Your task to perform on an android device: turn on the 12-hour format for clock Image 0: 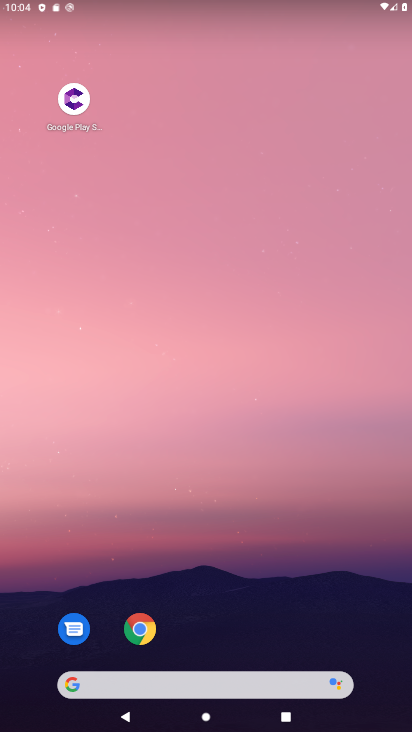
Step 0: press home button
Your task to perform on an android device: turn on the 12-hour format for clock Image 1: 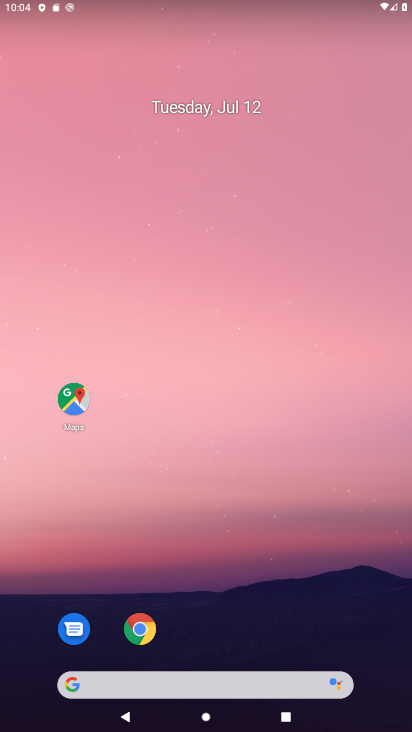
Step 1: press home button
Your task to perform on an android device: turn on the 12-hour format for clock Image 2: 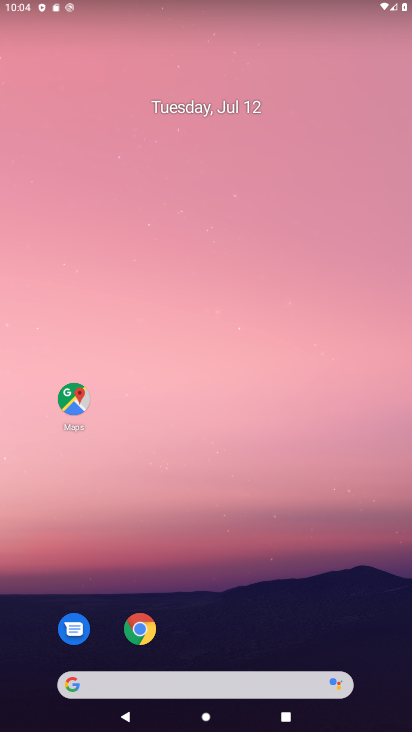
Step 2: drag from (311, 607) to (312, 417)
Your task to perform on an android device: turn on the 12-hour format for clock Image 3: 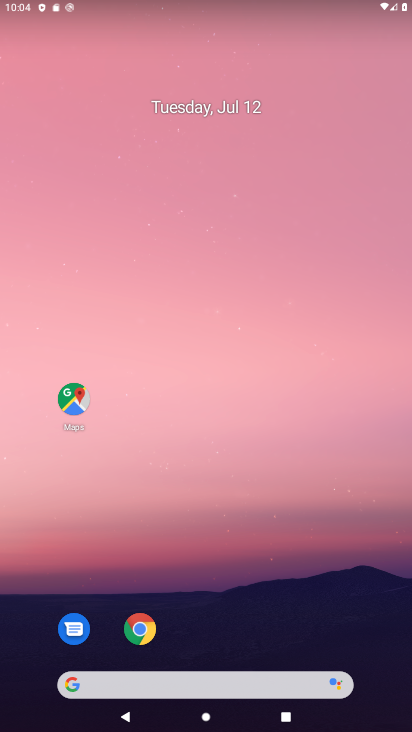
Step 3: drag from (338, 601) to (261, 42)
Your task to perform on an android device: turn on the 12-hour format for clock Image 4: 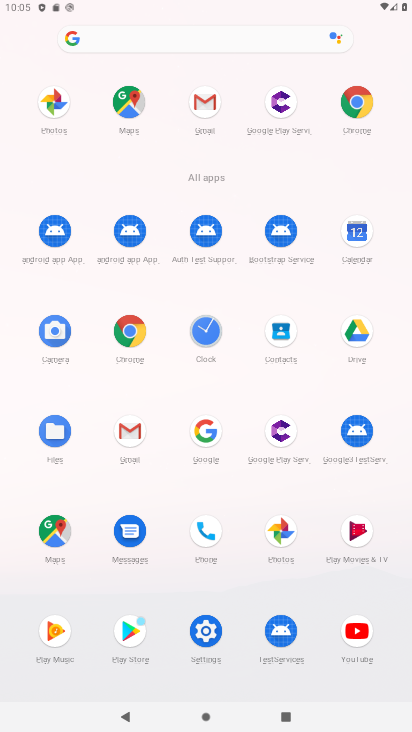
Step 4: click (209, 618)
Your task to perform on an android device: turn on the 12-hour format for clock Image 5: 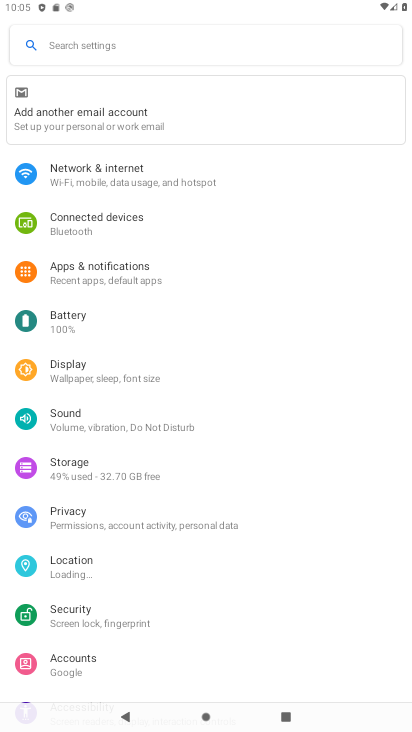
Step 5: drag from (201, 659) to (145, 418)
Your task to perform on an android device: turn on the 12-hour format for clock Image 6: 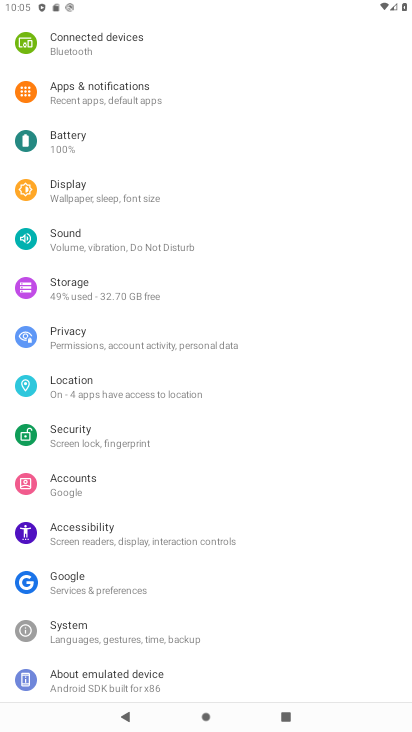
Step 6: drag from (202, 334) to (171, 725)
Your task to perform on an android device: turn on the 12-hour format for clock Image 7: 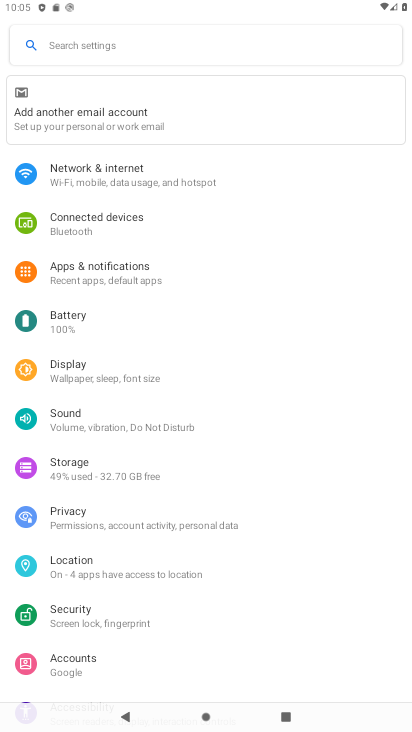
Step 7: drag from (222, 516) to (171, 398)
Your task to perform on an android device: turn on the 12-hour format for clock Image 8: 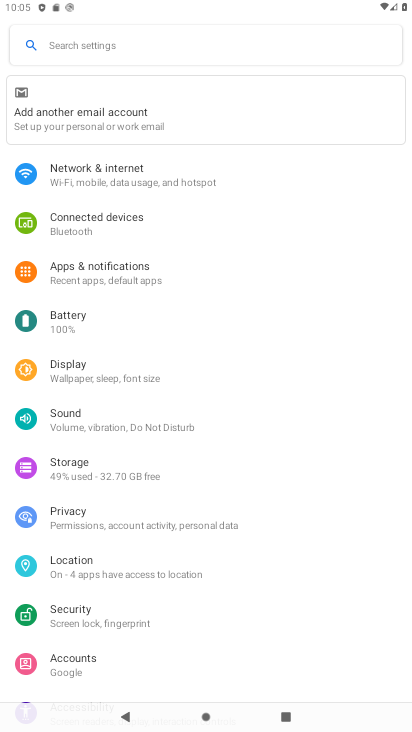
Step 8: press home button
Your task to perform on an android device: turn on the 12-hour format for clock Image 9: 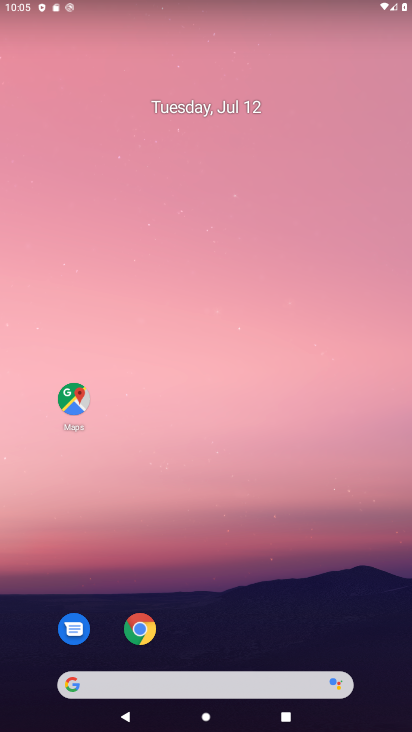
Step 9: drag from (316, 634) to (246, 146)
Your task to perform on an android device: turn on the 12-hour format for clock Image 10: 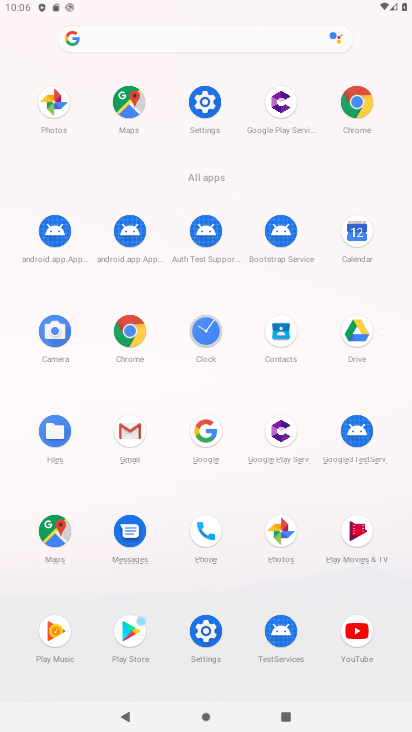
Step 10: click (208, 319)
Your task to perform on an android device: turn on the 12-hour format for clock Image 11: 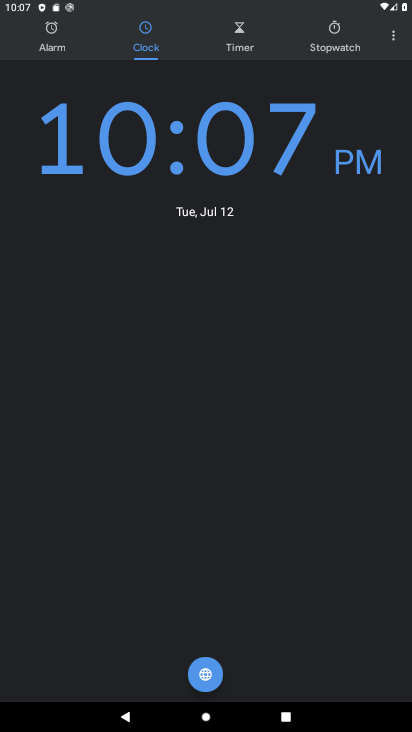
Step 11: click (395, 34)
Your task to perform on an android device: turn on the 12-hour format for clock Image 12: 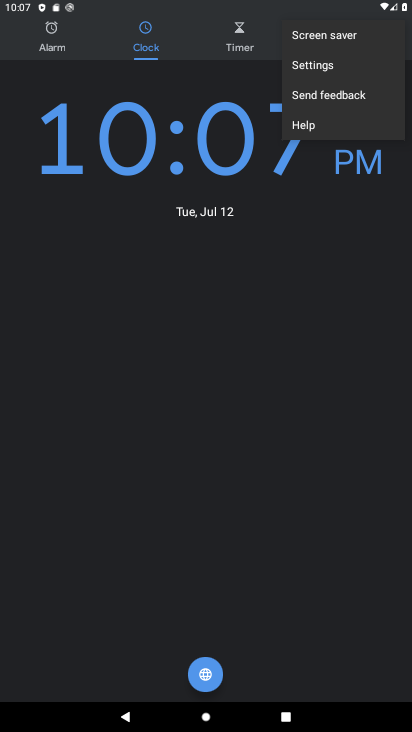
Step 12: click (317, 61)
Your task to perform on an android device: turn on the 12-hour format for clock Image 13: 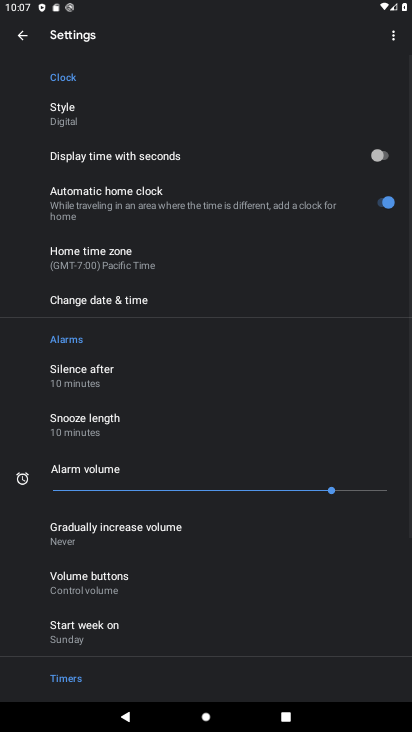
Step 13: drag from (167, 626) to (173, 149)
Your task to perform on an android device: turn on the 12-hour format for clock Image 14: 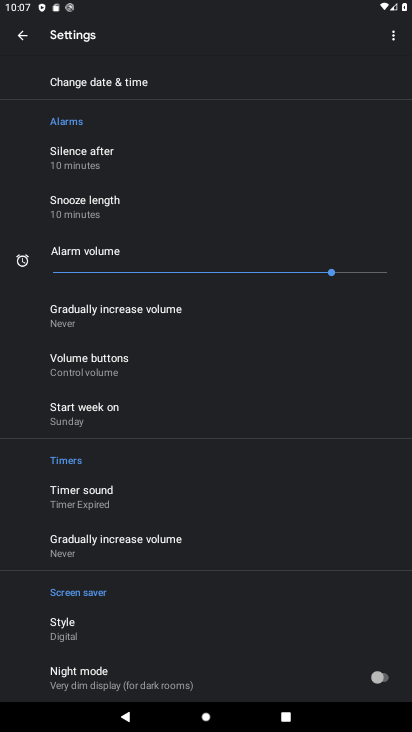
Step 14: drag from (178, 256) to (123, 702)
Your task to perform on an android device: turn on the 12-hour format for clock Image 15: 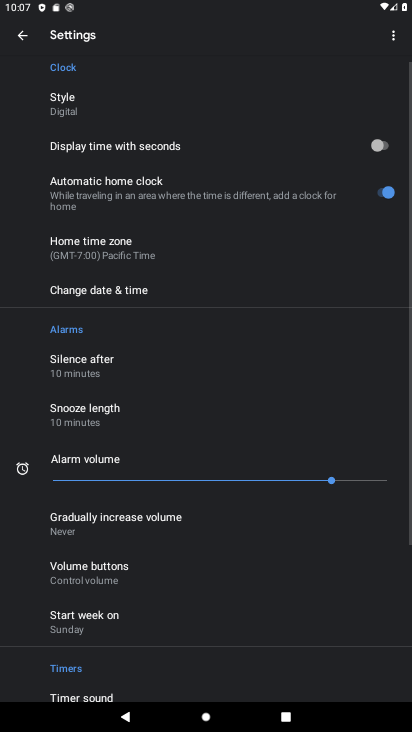
Step 15: click (133, 293)
Your task to perform on an android device: turn on the 12-hour format for clock Image 16: 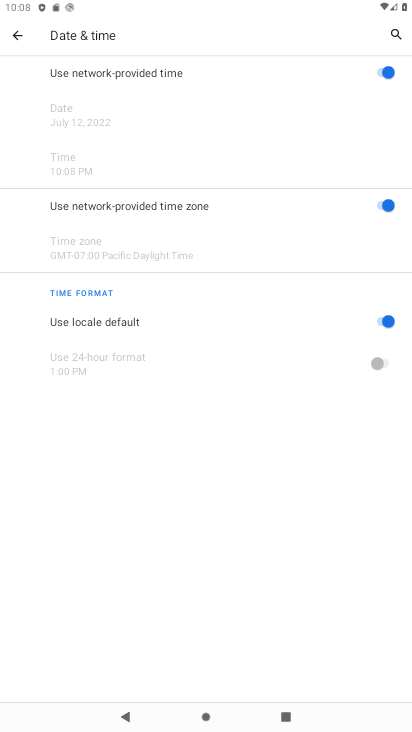
Step 16: click (371, 320)
Your task to perform on an android device: turn on the 12-hour format for clock Image 17: 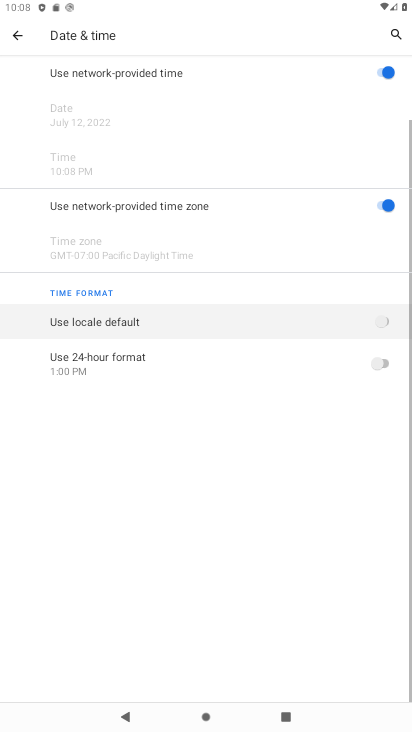
Step 17: click (357, 358)
Your task to perform on an android device: turn on the 12-hour format for clock Image 18: 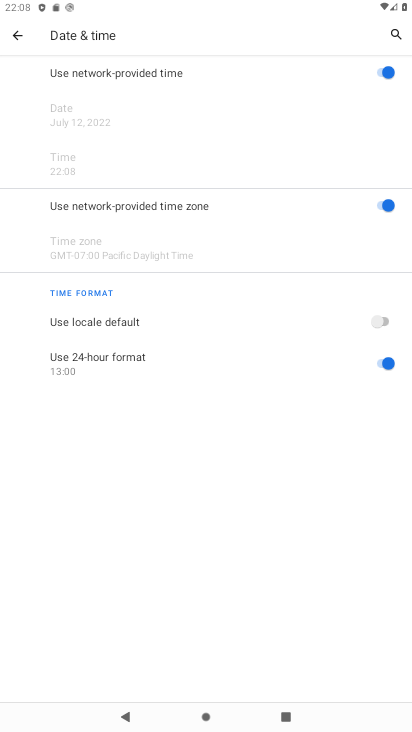
Step 18: task complete